Your task to perform on an android device: Search for pizza restaurants on Maps Image 0: 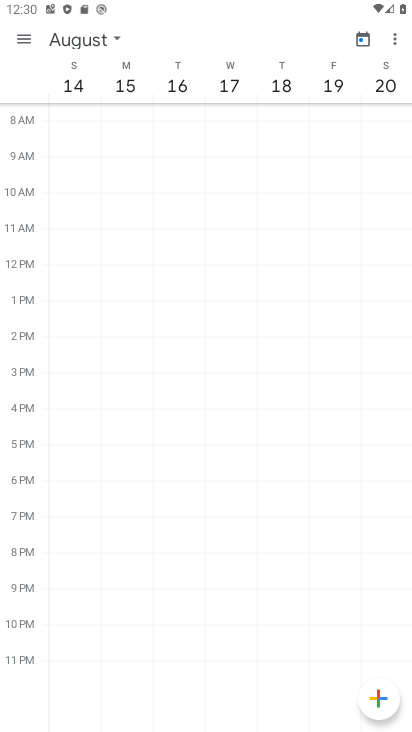
Step 0: press home button
Your task to perform on an android device: Search for pizza restaurants on Maps Image 1: 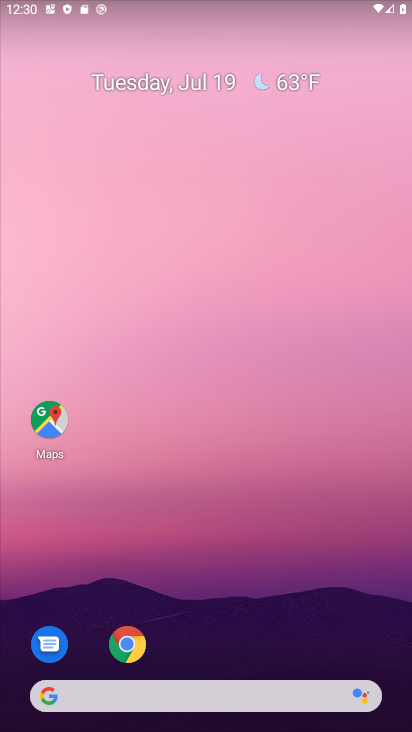
Step 1: drag from (220, 728) to (203, 268)
Your task to perform on an android device: Search for pizza restaurants on Maps Image 2: 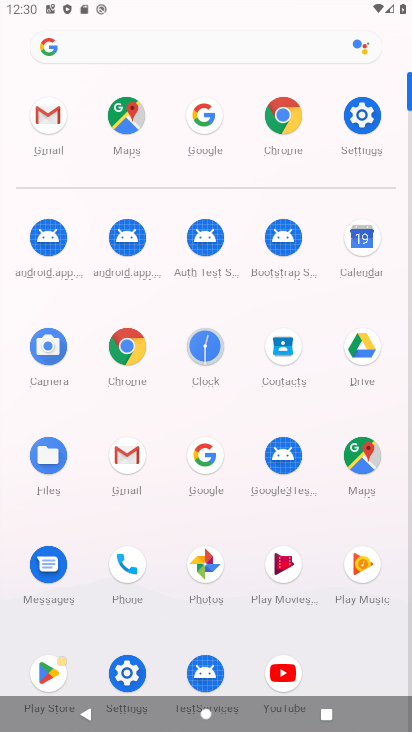
Step 2: click (358, 460)
Your task to perform on an android device: Search for pizza restaurants on Maps Image 3: 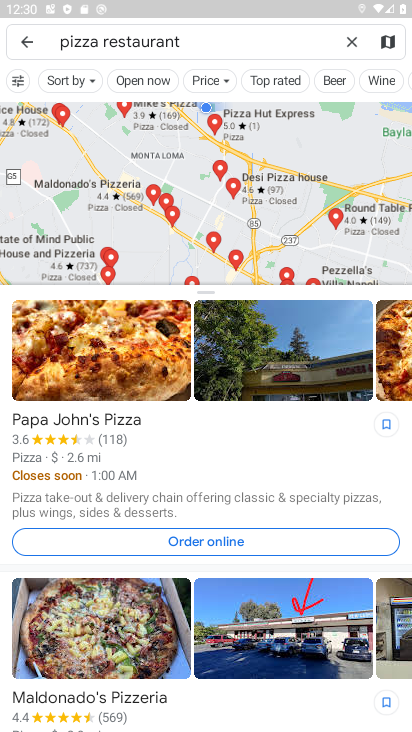
Step 3: task complete